Your task to perform on an android device: toggle notification dots Image 0: 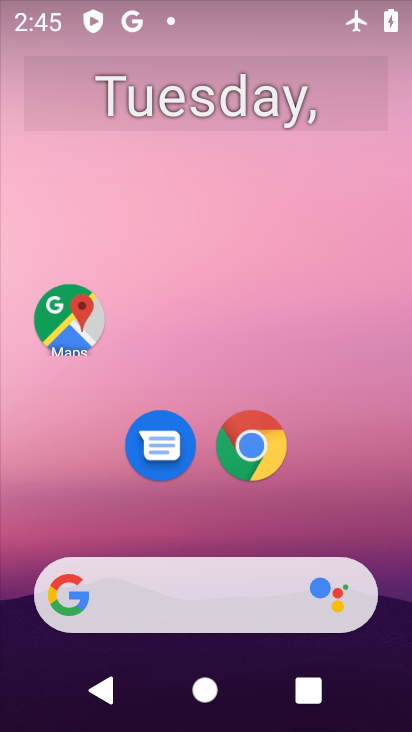
Step 0: drag from (263, 682) to (291, 6)
Your task to perform on an android device: toggle notification dots Image 1: 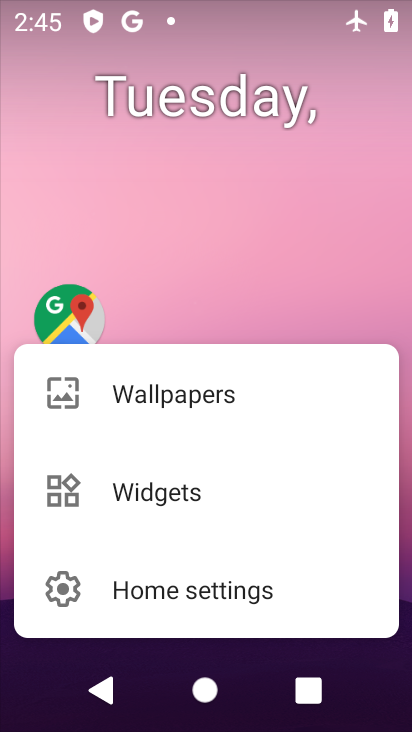
Step 1: press home button
Your task to perform on an android device: toggle notification dots Image 2: 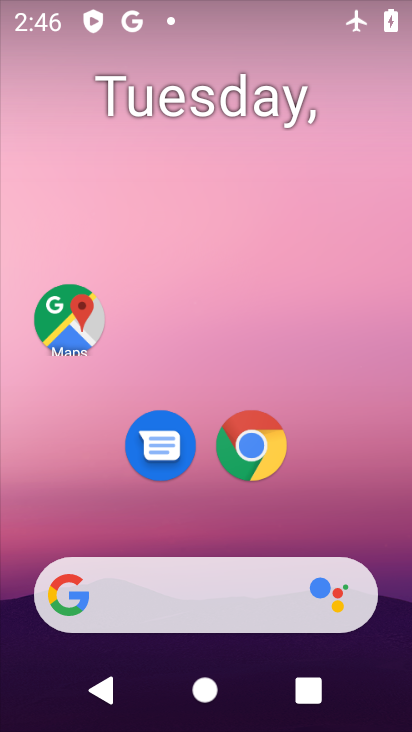
Step 2: drag from (169, 585) to (218, 13)
Your task to perform on an android device: toggle notification dots Image 3: 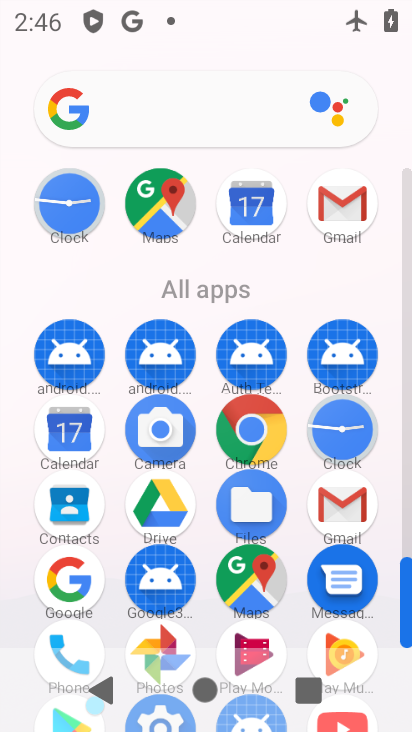
Step 3: drag from (269, 631) to (342, 176)
Your task to perform on an android device: toggle notification dots Image 4: 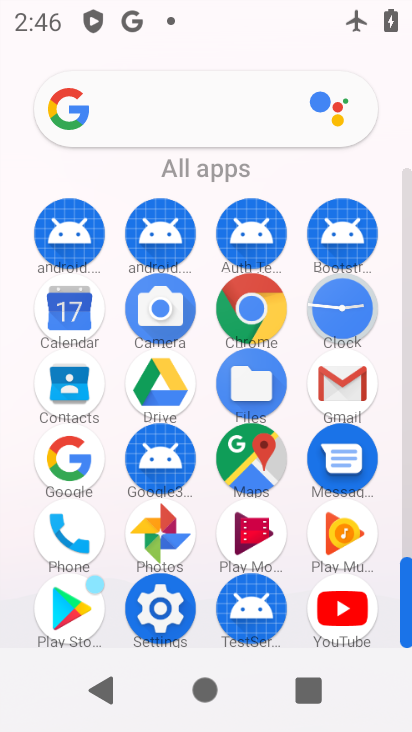
Step 4: click (137, 607)
Your task to perform on an android device: toggle notification dots Image 5: 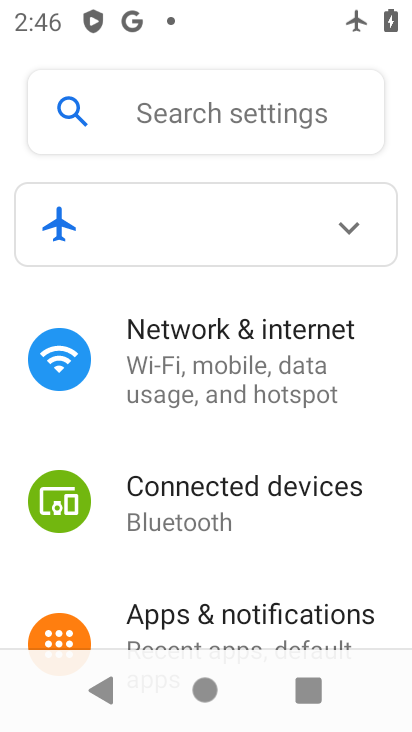
Step 5: click (330, 606)
Your task to perform on an android device: toggle notification dots Image 6: 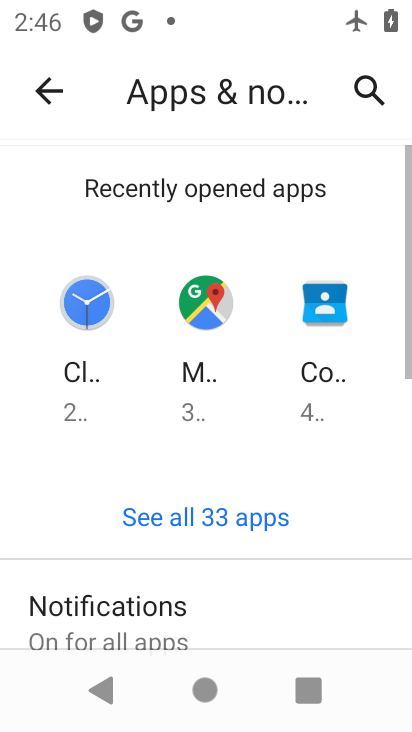
Step 6: drag from (295, 611) to (325, 124)
Your task to perform on an android device: toggle notification dots Image 7: 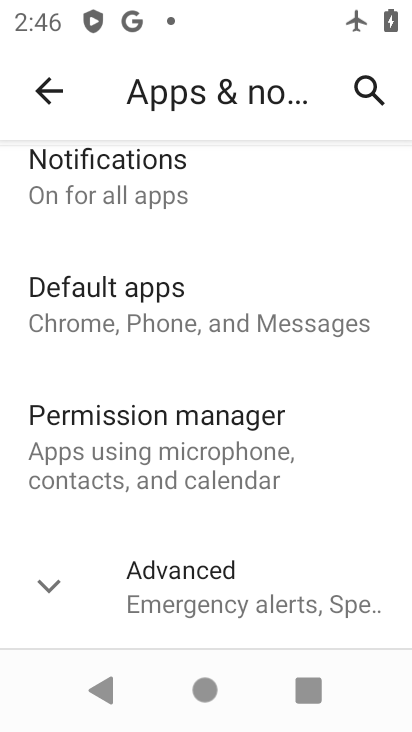
Step 7: click (163, 179)
Your task to perform on an android device: toggle notification dots Image 8: 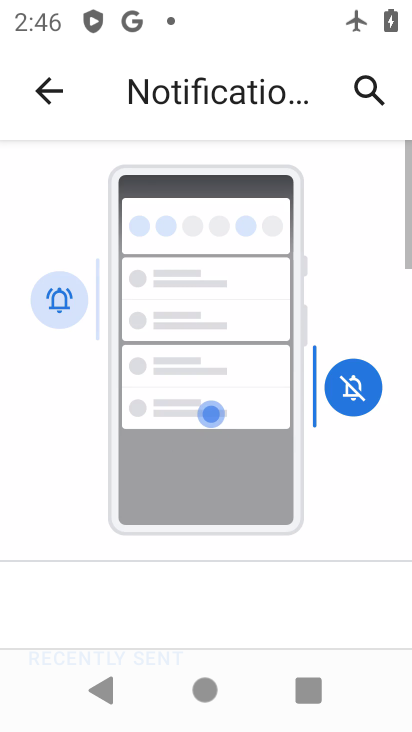
Step 8: drag from (269, 589) to (316, 24)
Your task to perform on an android device: toggle notification dots Image 9: 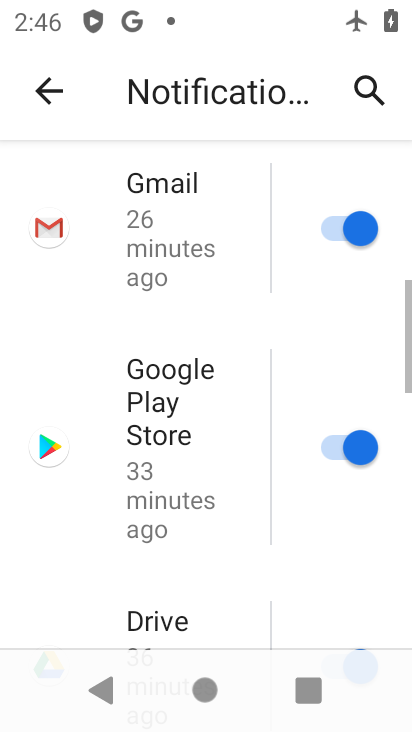
Step 9: drag from (236, 538) to (236, 211)
Your task to perform on an android device: toggle notification dots Image 10: 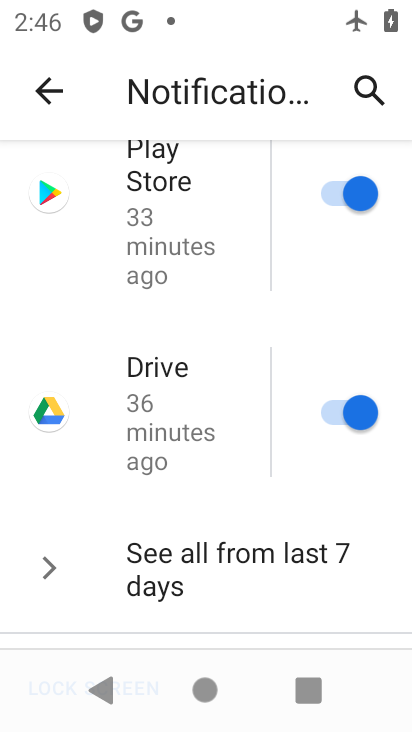
Step 10: drag from (235, 600) to (304, 220)
Your task to perform on an android device: toggle notification dots Image 11: 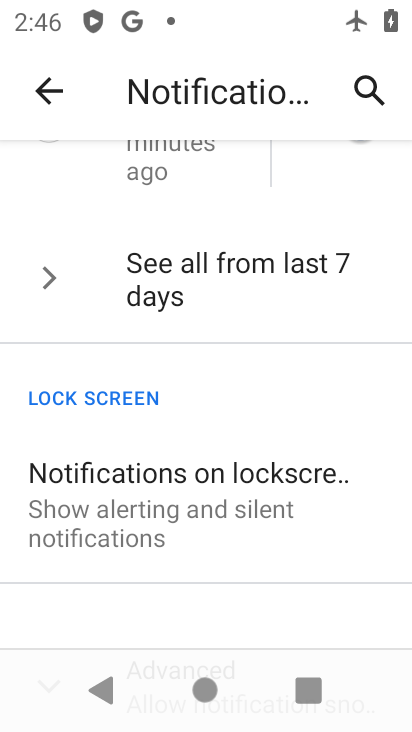
Step 11: drag from (228, 634) to (248, 75)
Your task to perform on an android device: toggle notification dots Image 12: 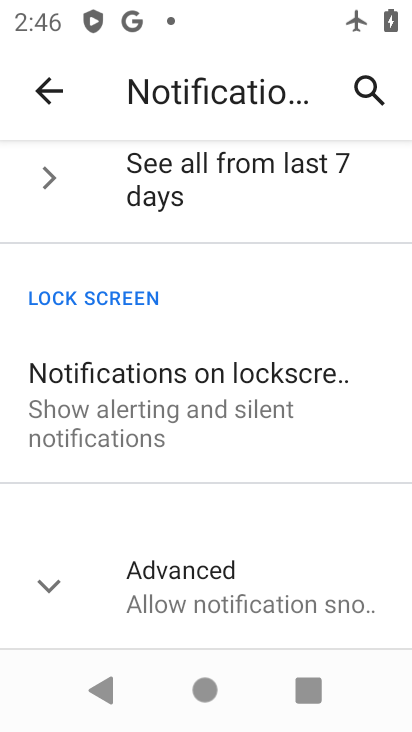
Step 12: click (242, 604)
Your task to perform on an android device: toggle notification dots Image 13: 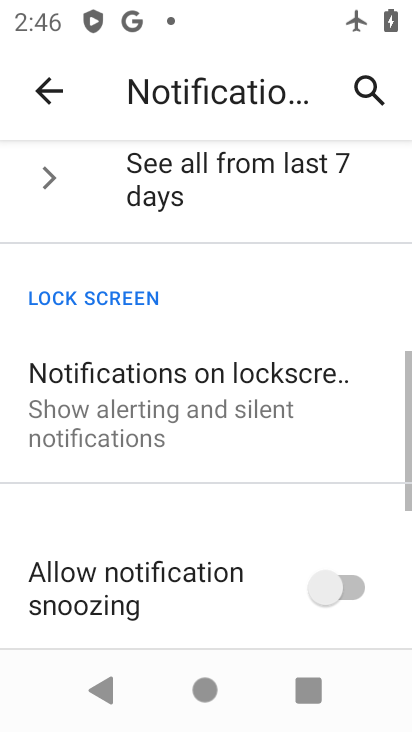
Step 13: drag from (286, 595) to (250, 158)
Your task to perform on an android device: toggle notification dots Image 14: 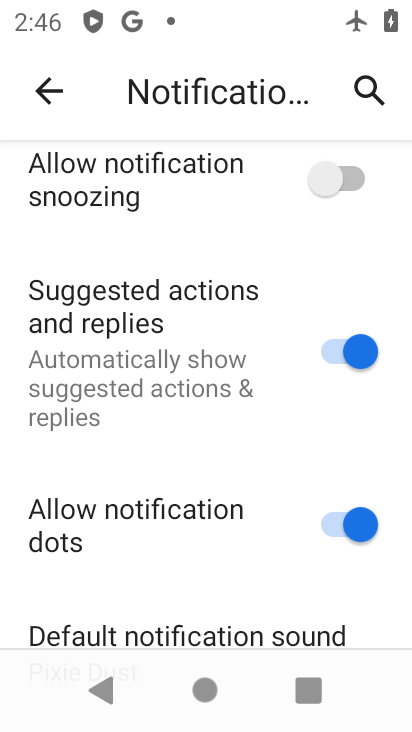
Step 14: click (351, 518)
Your task to perform on an android device: toggle notification dots Image 15: 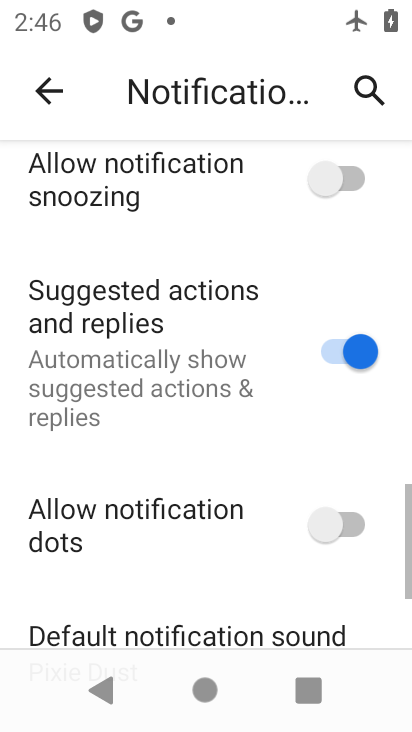
Step 15: task complete